Your task to perform on an android device: Open Google Chrome Image 0: 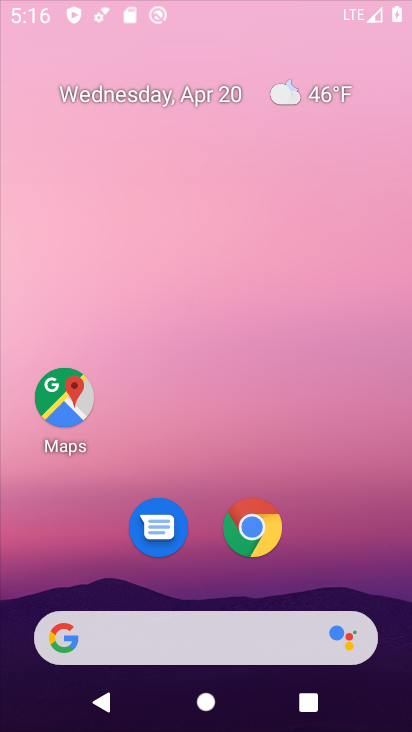
Step 0: click (201, 517)
Your task to perform on an android device: Open Google Chrome Image 1: 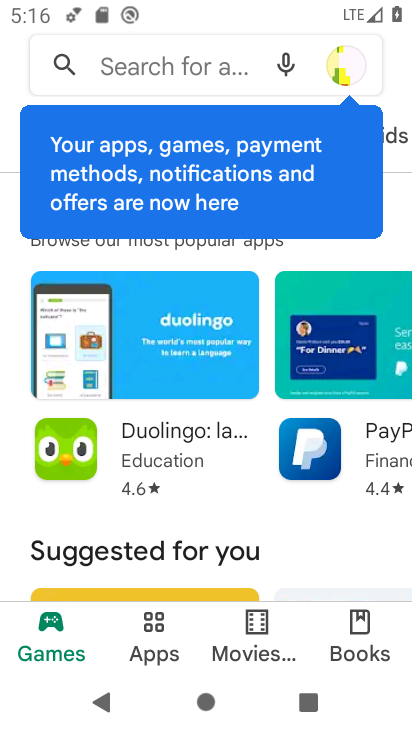
Step 1: press home button
Your task to perform on an android device: Open Google Chrome Image 2: 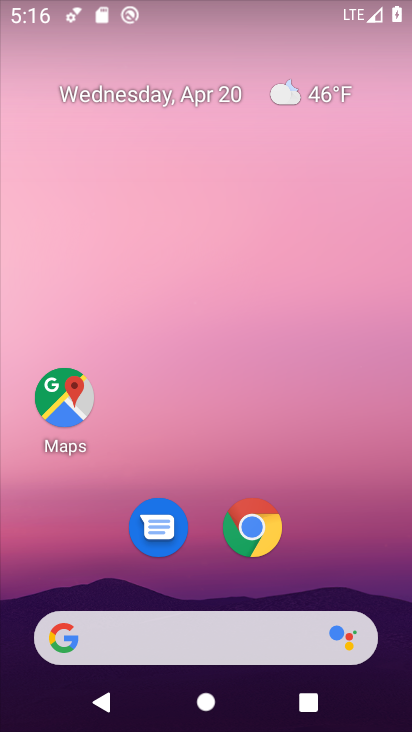
Step 2: click (260, 528)
Your task to perform on an android device: Open Google Chrome Image 3: 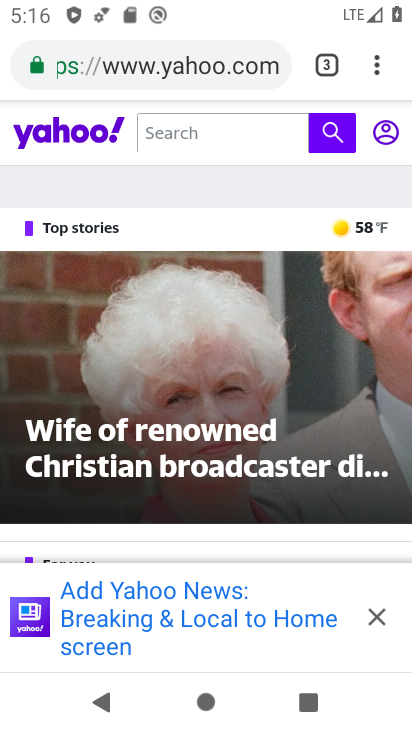
Step 3: task complete